Your task to perform on an android device: Search for the new Nintendo switch on Best Buy Image 0: 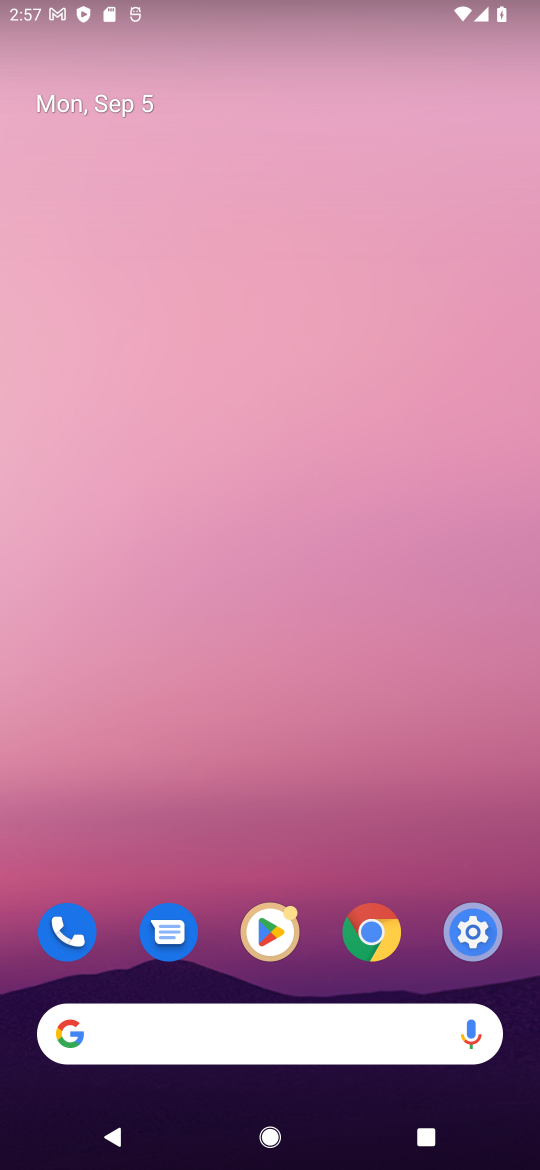
Step 0: click (264, 1042)
Your task to perform on an android device: Search for the new Nintendo switch on Best Buy Image 1: 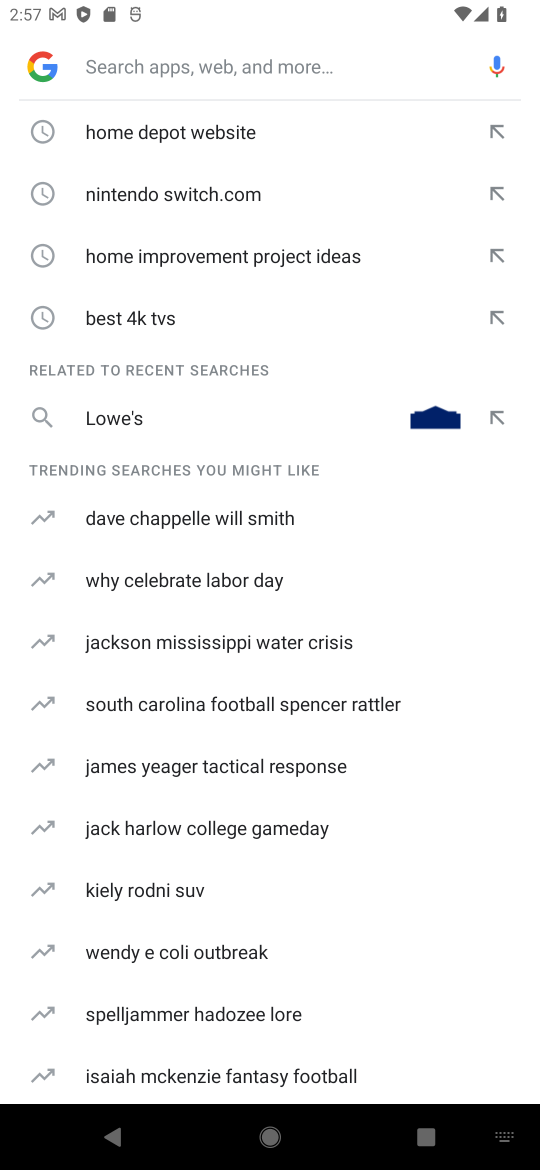
Step 1: type "Best Buy"
Your task to perform on an android device: Search for the new Nintendo switch on Best Buy Image 2: 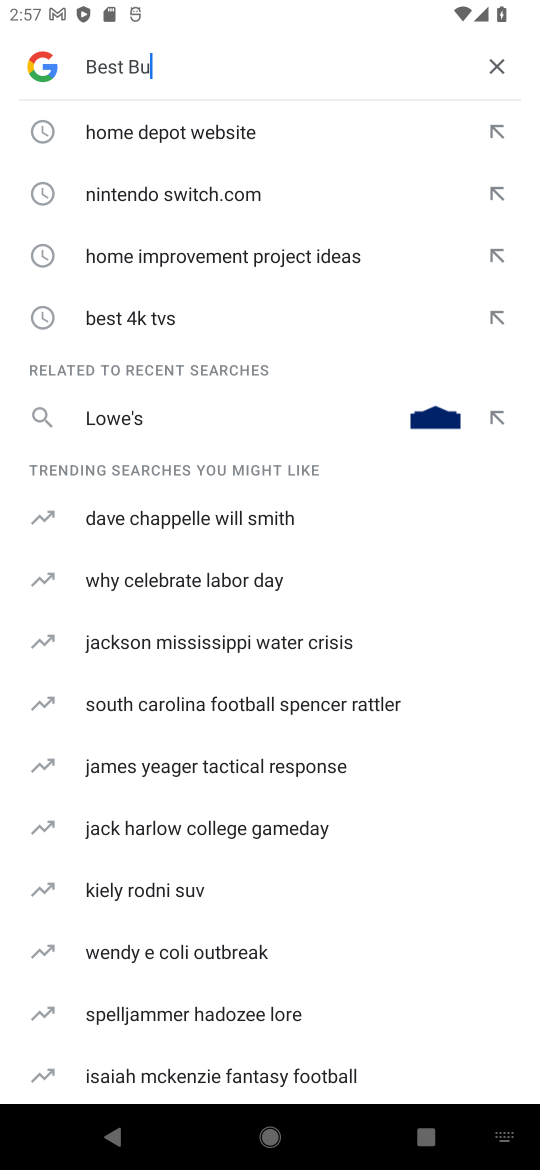
Step 2: type ""
Your task to perform on an android device: Search for the new Nintendo switch on Best Buy Image 3: 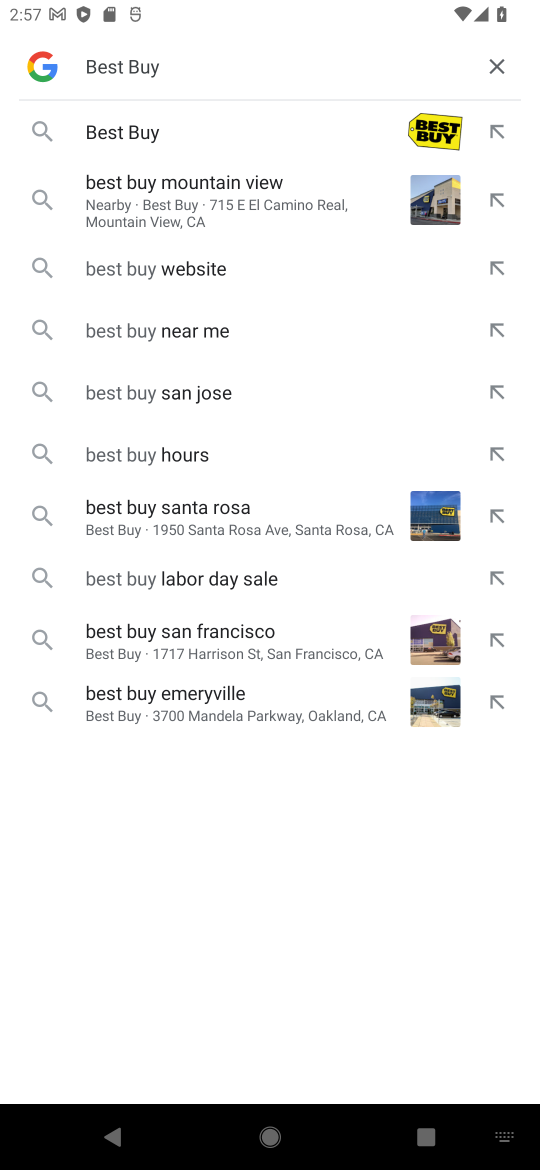
Step 3: click (205, 122)
Your task to perform on an android device: Search for the new Nintendo switch on Best Buy Image 4: 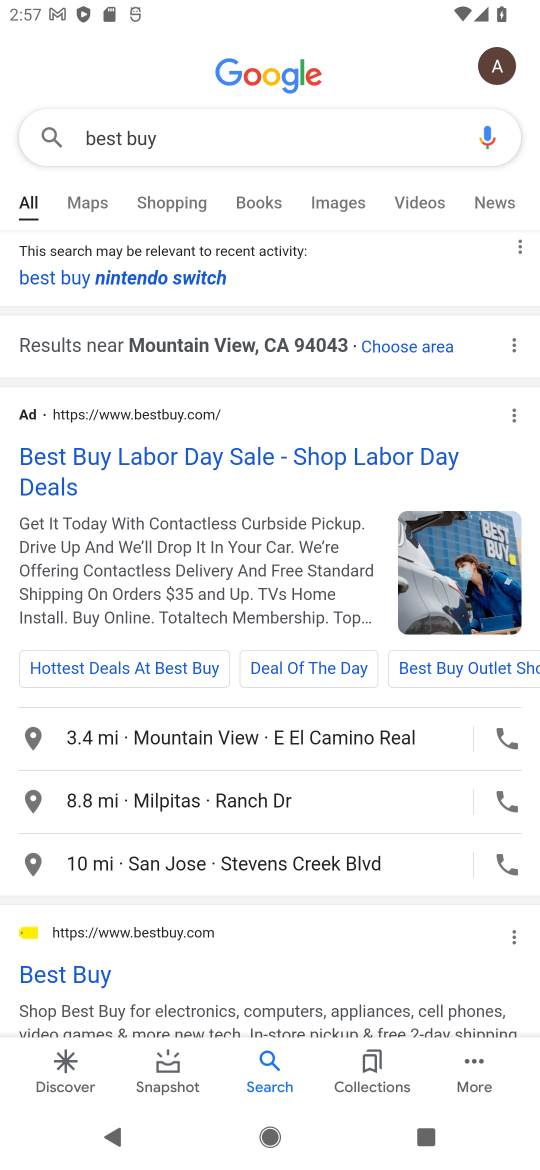
Step 4: drag from (268, 868) to (375, 374)
Your task to perform on an android device: Search for the new Nintendo switch on Best Buy Image 5: 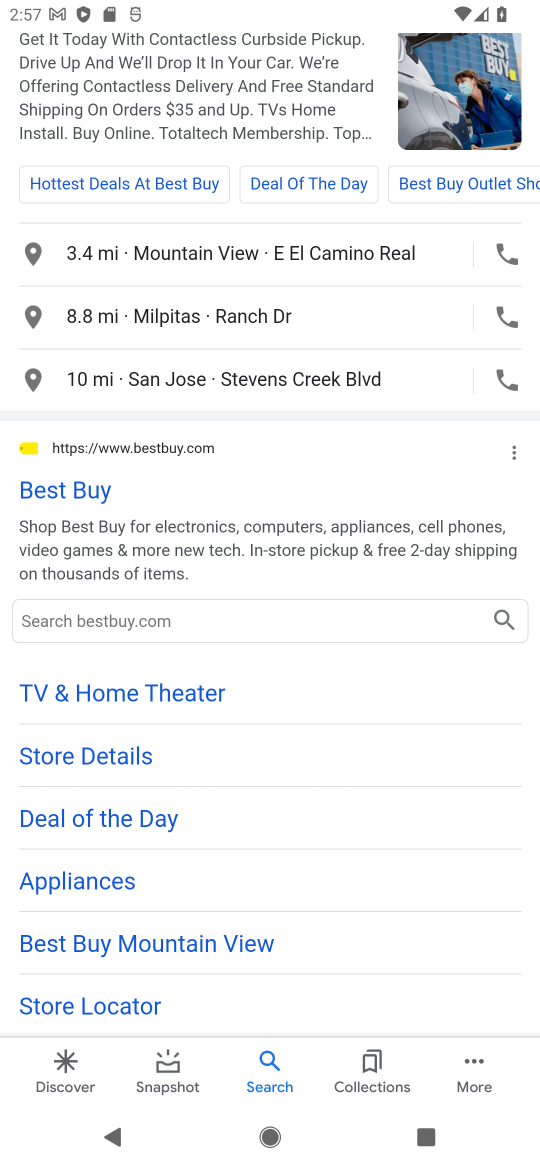
Step 5: click (74, 491)
Your task to perform on an android device: Search for the new Nintendo switch on Best Buy Image 6: 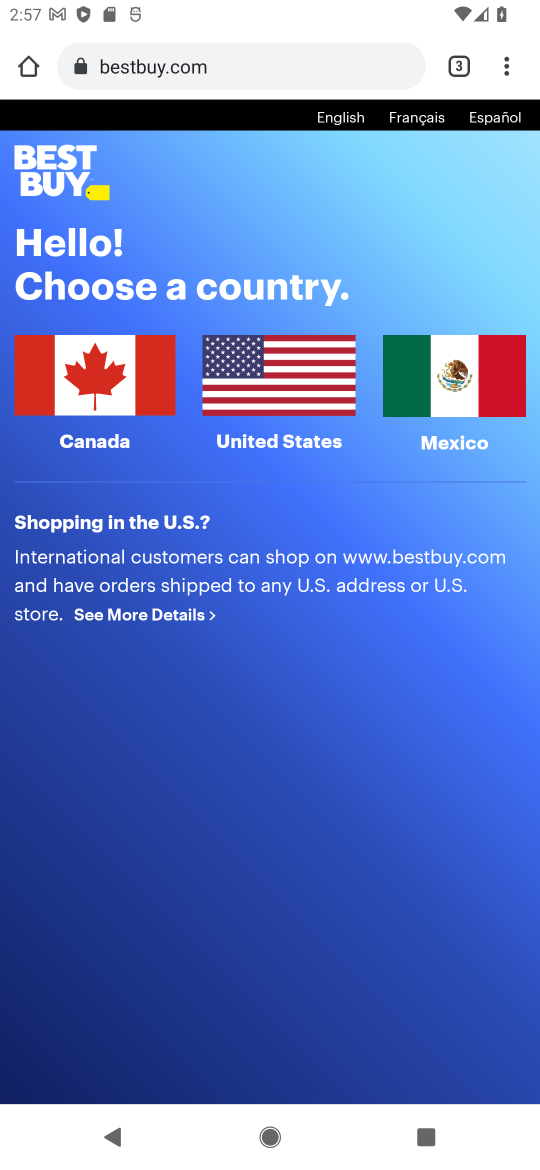
Step 6: click (255, 398)
Your task to perform on an android device: Search for the new Nintendo switch on Best Buy Image 7: 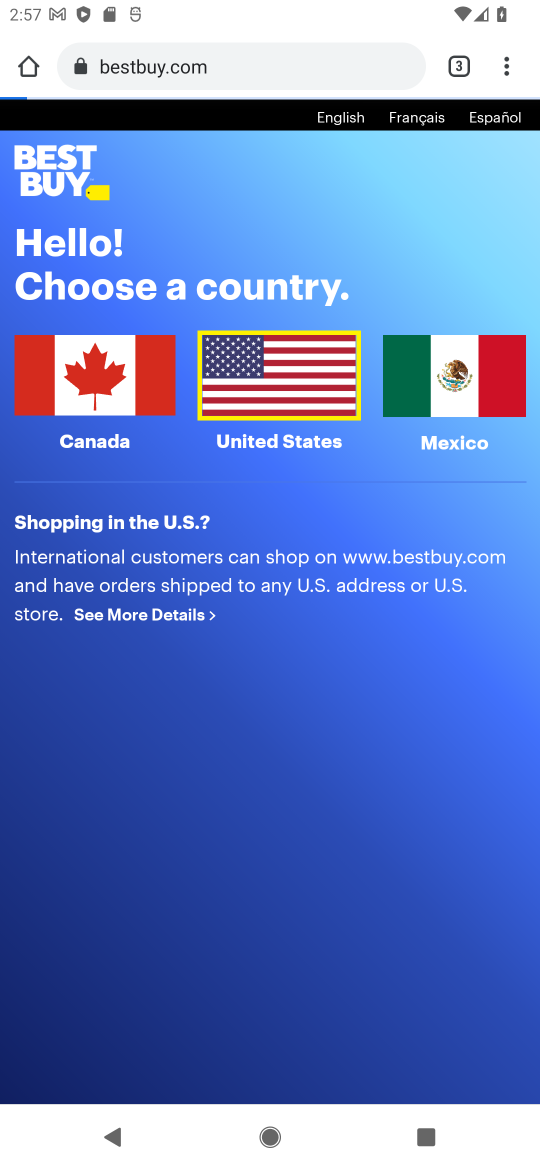
Step 7: click (257, 376)
Your task to perform on an android device: Search for the new Nintendo switch on Best Buy Image 8: 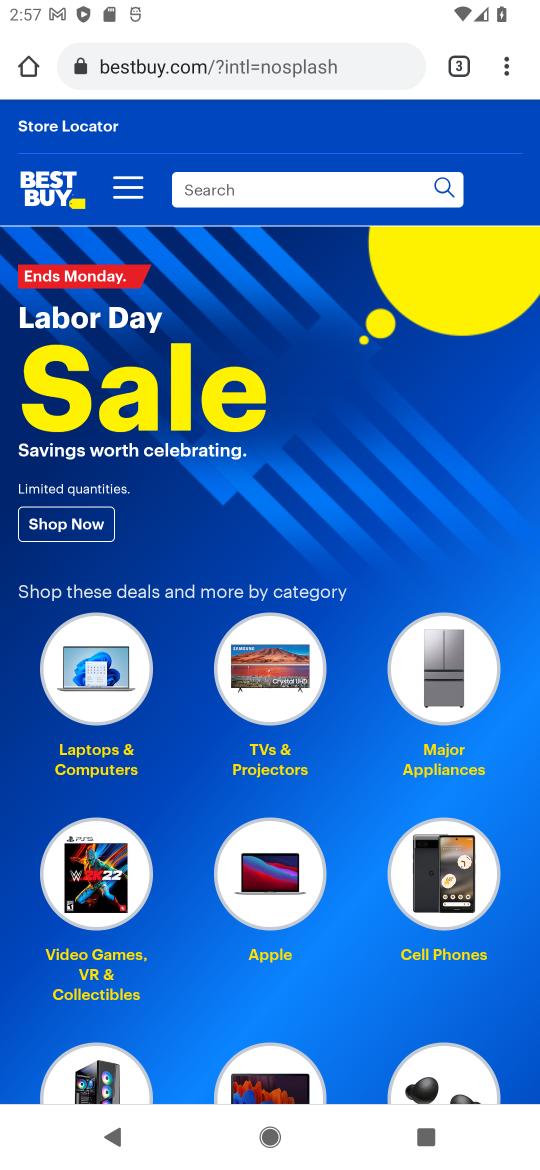
Step 8: click (293, 195)
Your task to perform on an android device: Search for the new Nintendo switch on Best Buy Image 9: 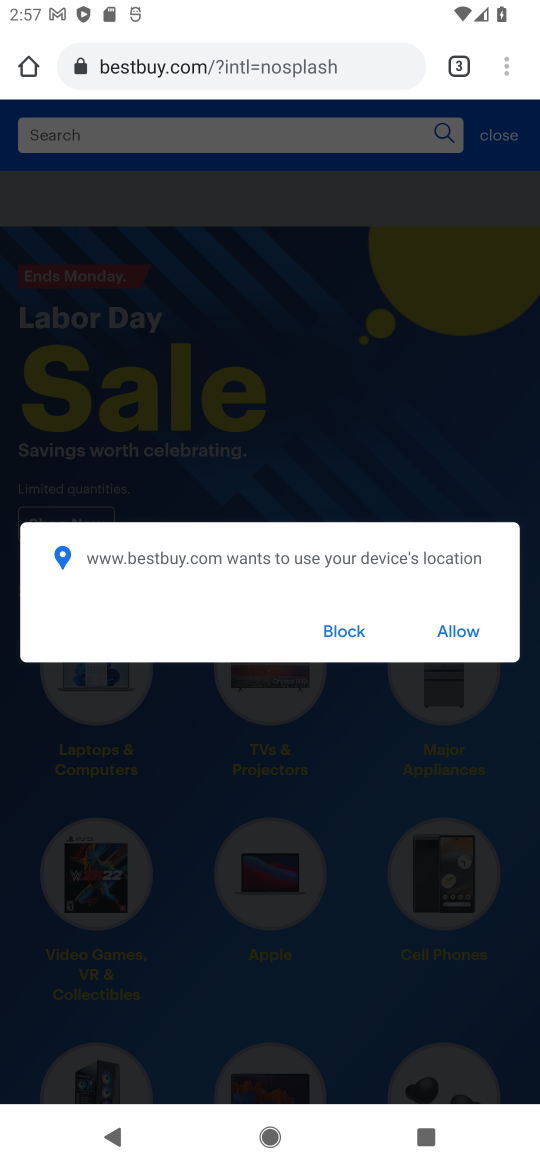
Step 9: click (458, 623)
Your task to perform on an android device: Search for the new Nintendo switch on Best Buy Image 10: 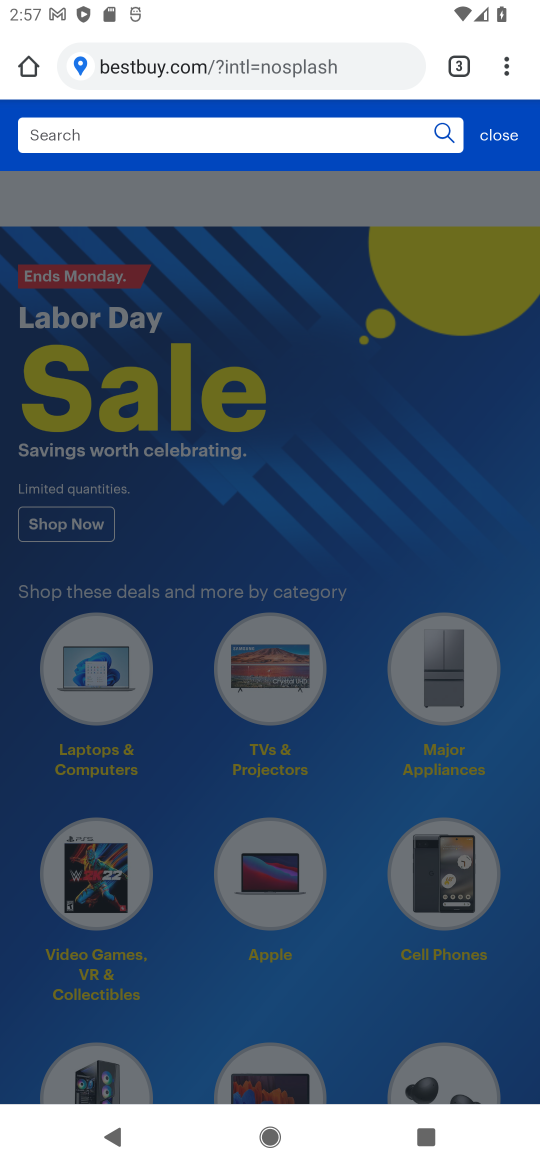
Step 10: click (82, 128)
Your task to perform on an android device: Search for the new Nintendo switch on Best Buy Image 11: 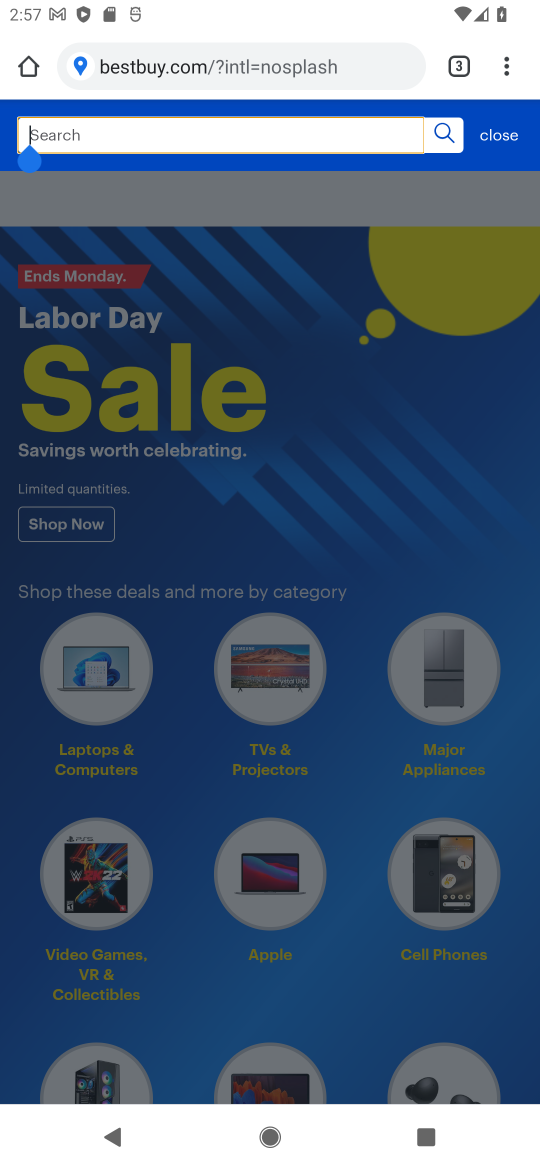
Step 11: type "Nintendo switch"
Your task to perform on an android device: Search for the new Nintendo switch on Best Buy Image 12: 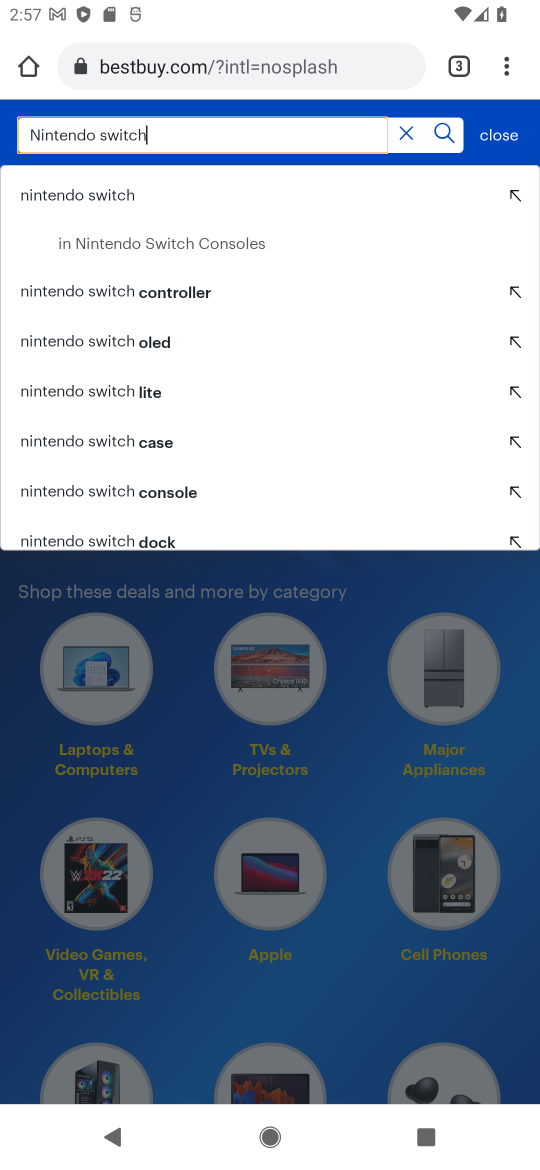
Step 12: click (240, 189)
Your task to perform on an android device: Search for the new Nintendo switch on Best Buy Image 13: 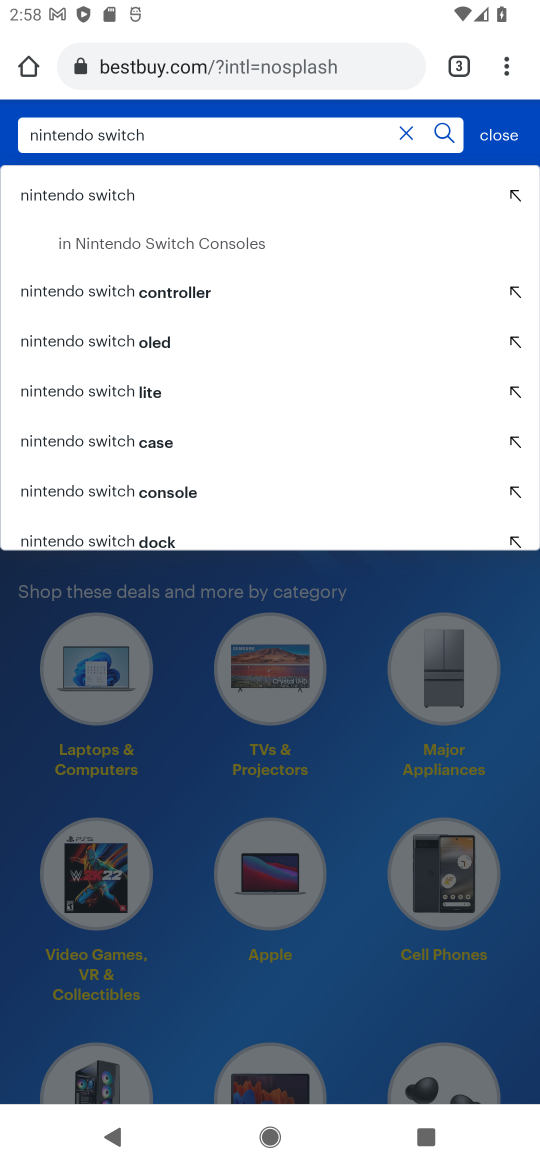
Step 13: click (164, 187)
Your task to perform on an android device: Search for the new Nintendo switch on Best Buy Image 14: 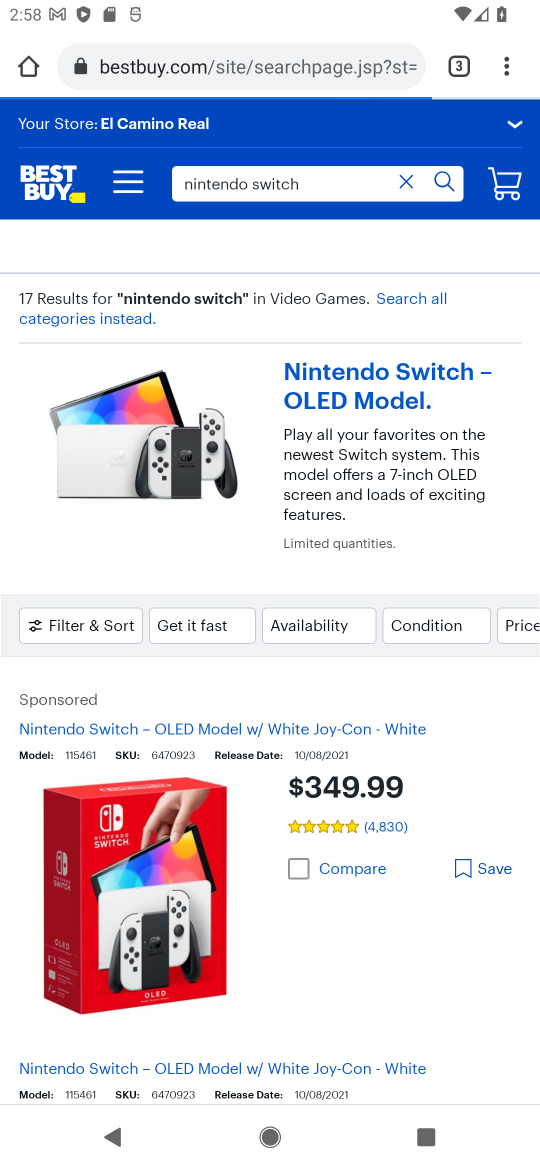
Step 14: task complete